Your task to perform on an android device: Go to Amazon Image 0: 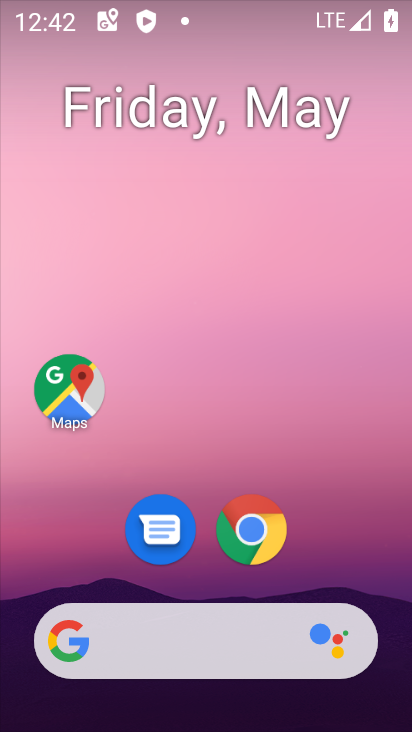
Step 0: click (227, 524)
Your task to perform on an android device: Go to Amazon Image 1: 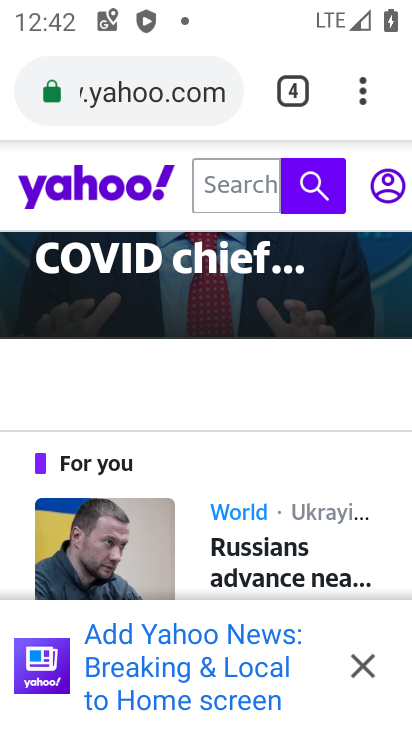
Step 1: click (290, 86)
Your task to perform on an android device: Go to Amazon Image 2: 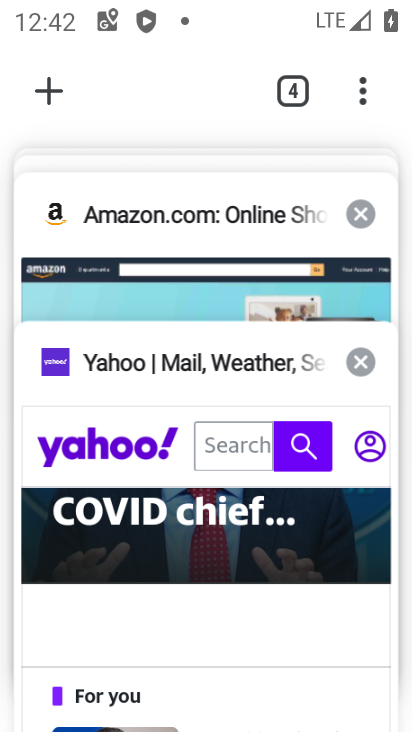
Step 2: click (165, 252)
Your task to perform on an android device: Go to Amazon Image 3: 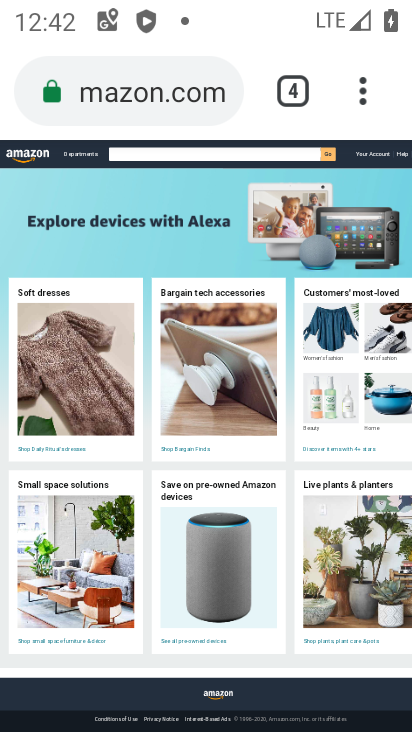
Step 3: task complete